Your task to perform on an android device: read, delete, or share a saved page in the chrome app Image 0: 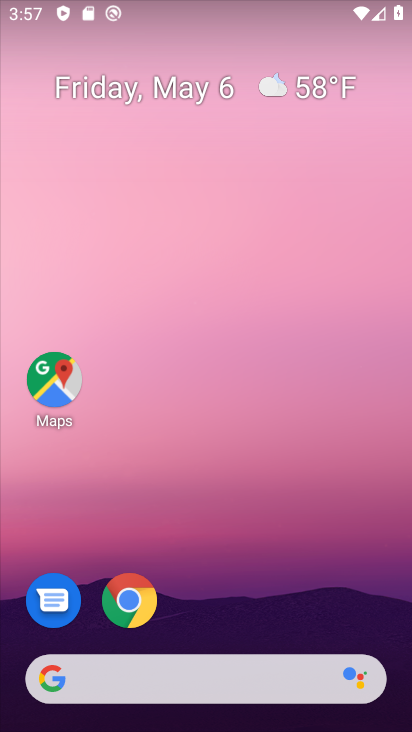
Step 0: click (122, 605)
Your task to perform on an android device: read, delete, or share a saved page in the chrome app Image 1: 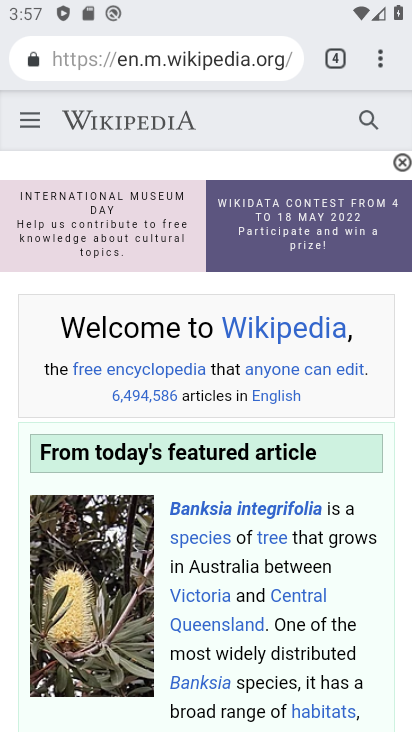
Step 1: click (384, 57)
Your task to perform on an android device: read, delete, or share a saved page in the chrome app Image 2: 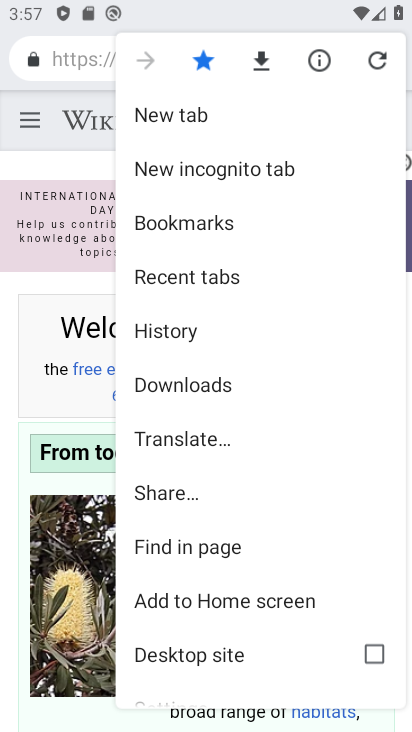
Step 2: click (190, 384)
Your task to perform on an android device: read, delete, or share a saved page in the chrome app Image 3: 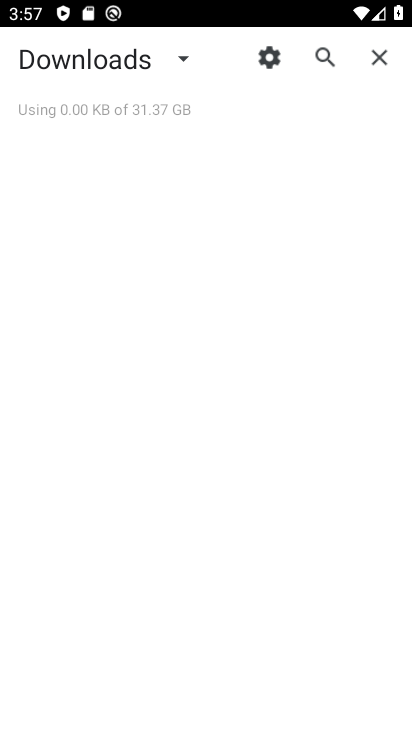
Step 3: task complete